Your task to perform on an android device: Open settings on Google Maps Image 0: 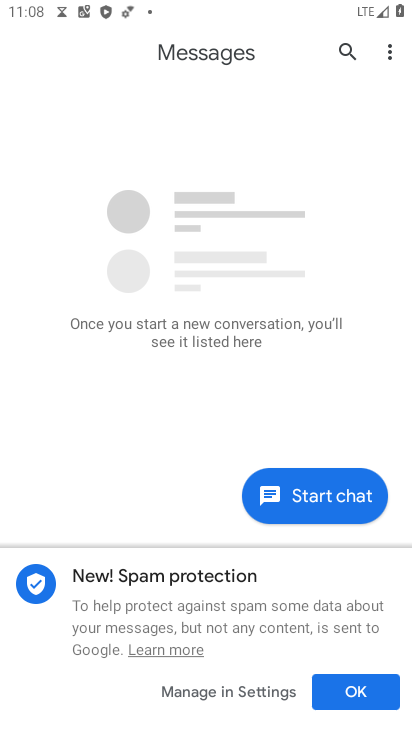
Step 0: press back button
Your task to perform on an android device: Open settings on Google Maps Image 1: 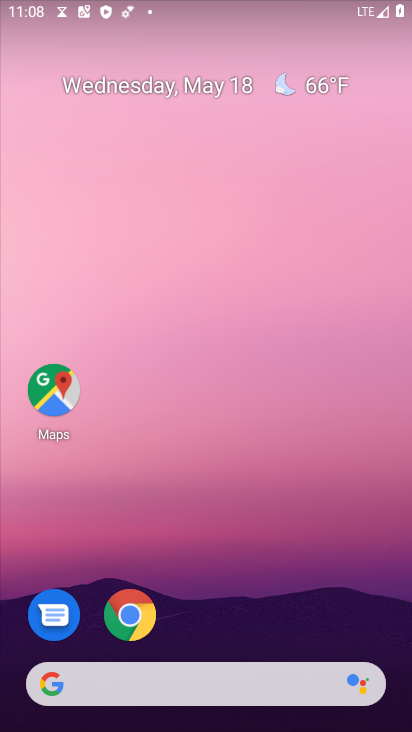
Step 1: drag from (261, 496) to (259, 15)
Your task to perform on an android device: Open settings on Google Maps Image 2: 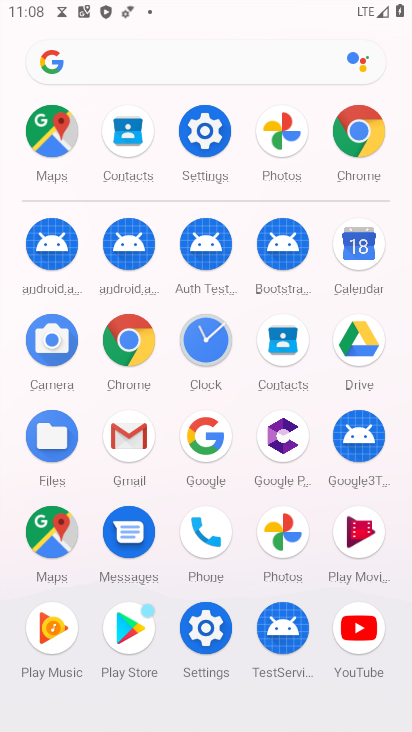
Step 2: click (46, 518)
Your task to perform on an android device: Open settings on Google Maps Image 3: 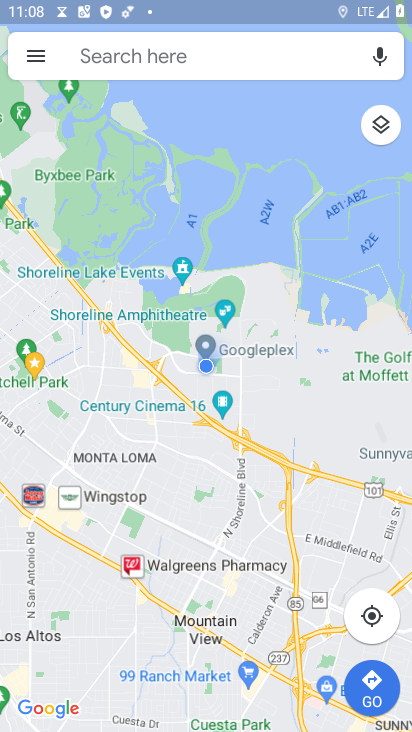
Step 3: click (32, 54)
Your task to perform on an android device: Open settings on Google Maps Image 4: 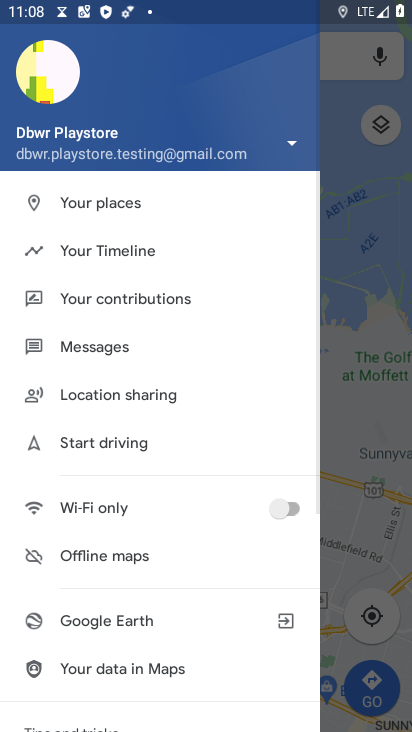
Step 4: drag from (167, 647) to (160, 167)
Your task to perform on an android device: Open settings on Google Maps Image 5: 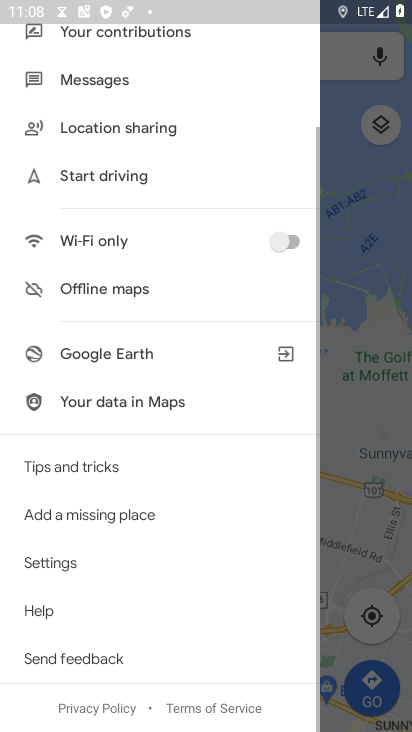
Step 5: click (52, 558)
Your task to perform on an android device: Open settings on Google Maps Image 6: 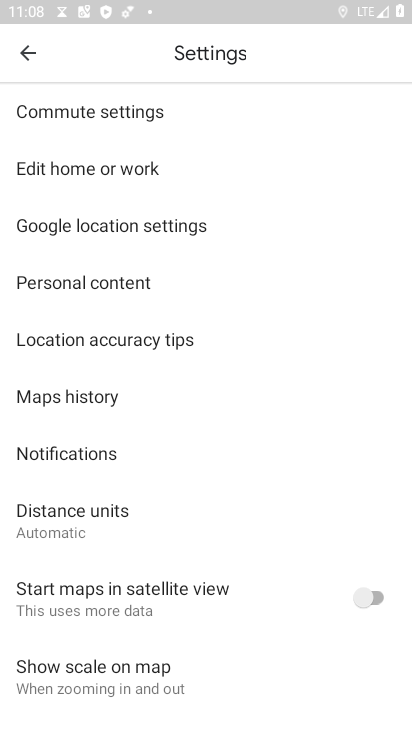
Step 6: task complete